Your task to perform on an android device: find snoozed emails in the gmail app Image 0: 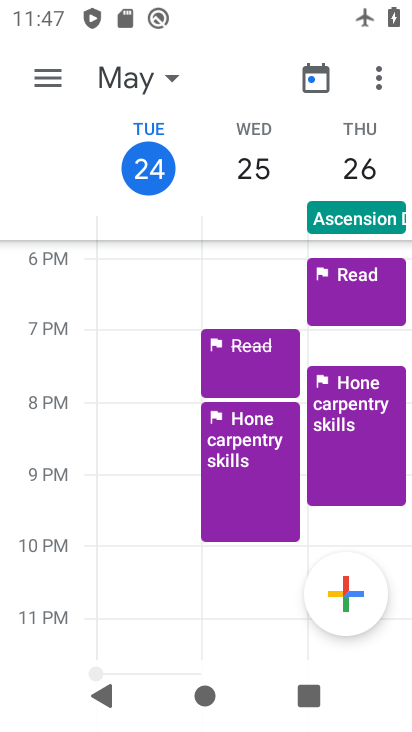
Step 0: press home button
Your task to perform on an android device: find snoozed emails in the gmail app Image 1: 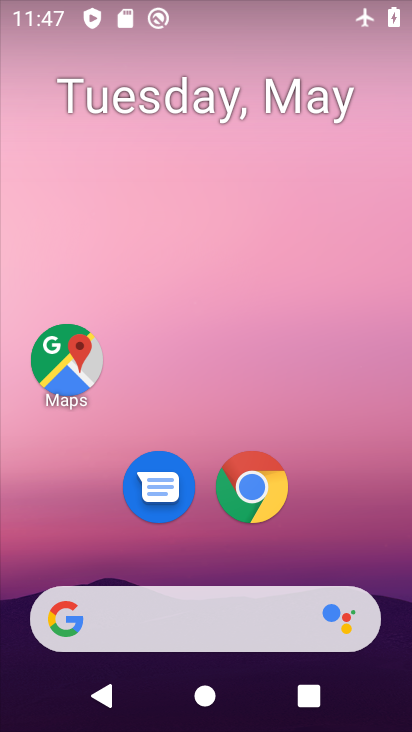
Step 1: click (350, 107)
Your task to perform on an android device: find snoozed emails in the gmail app Image 2: 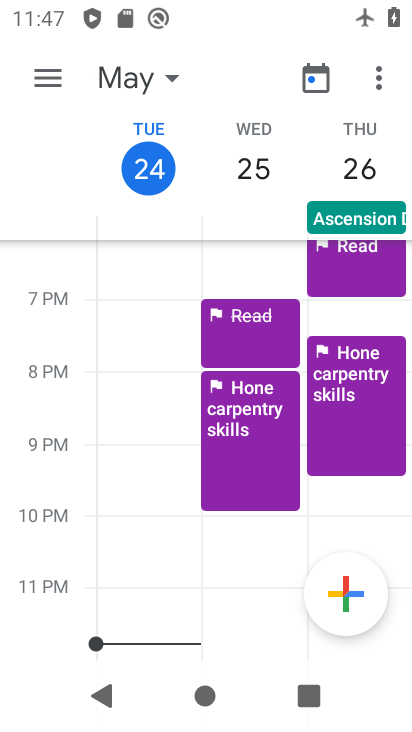
Step 2: press home button
Your task to perform on an android device: find snoozed emails in the gmail app Image 3: 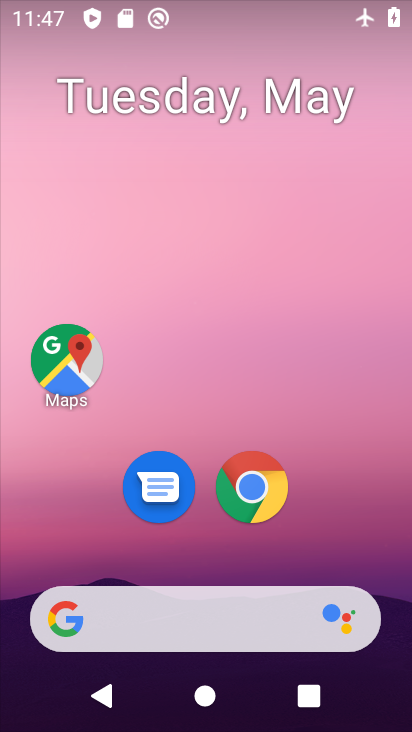
Step 3: drag from (314, 534) to (240, 0)
Your task to perform on an android device: find snoozed emails in the gmail app Image 4: 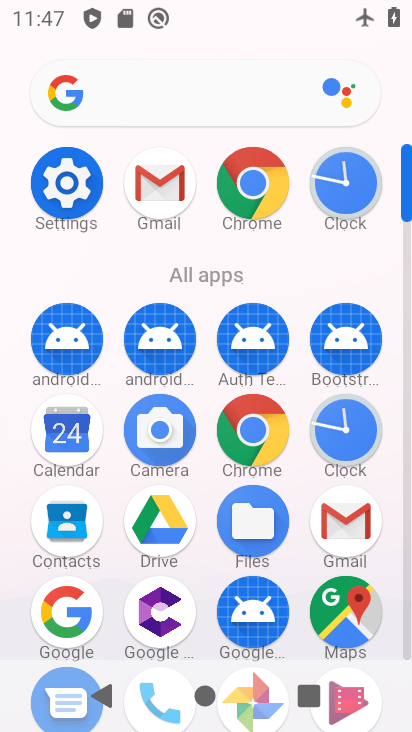
Step 4: click (163, 195)
Your task to perform on an android device: find snoozed emails in the gmail app Image 5: 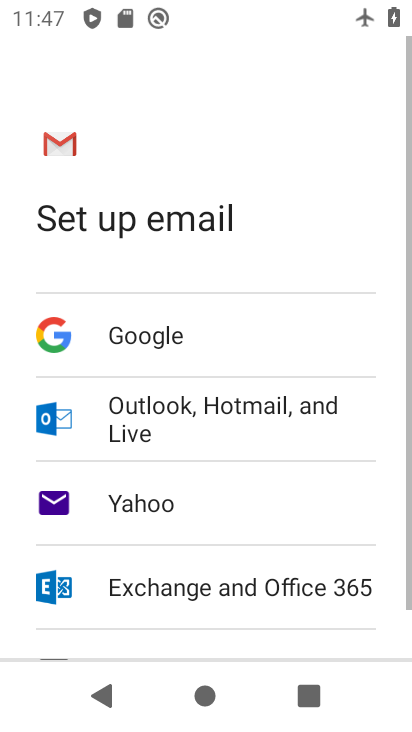
Step 5: drag from (201, 525) to (193, 21)
Your task to perform on an android device: find snoozed emails in the gmail app Image 6: 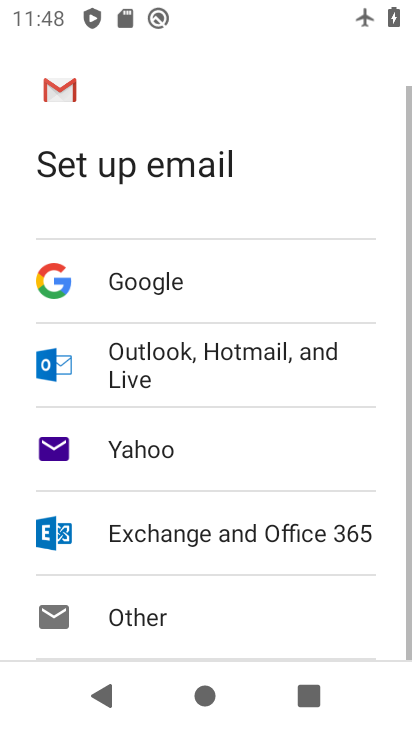
Step 6: press back button
Your task to perform on an android device: find snoozed emails in the gmail app Image 7: 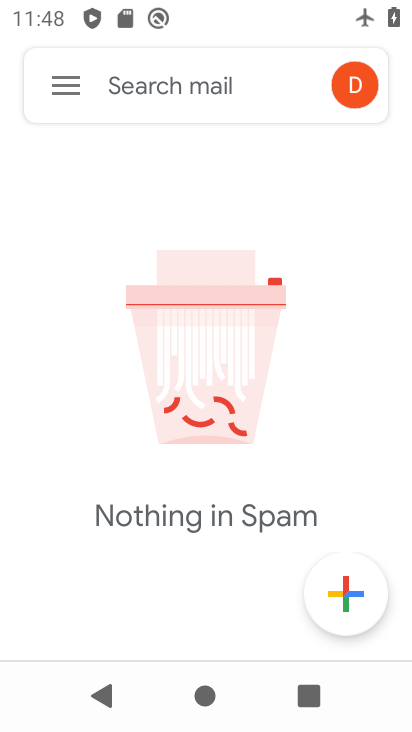
Step 7: click (47, 96)
Your task to perform on an android device: find snoozed emails in the gmail app Image 8: 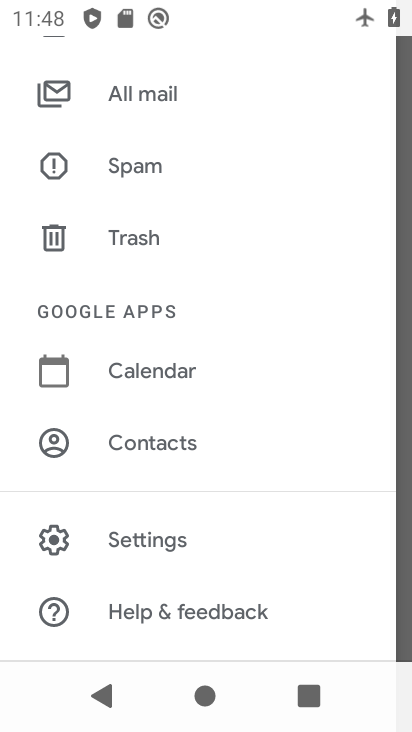
Step 8: drag from (304, 183) to (284, 627)
Your task to perform on an android device: find snoozed emails in the gmail app Image 9: 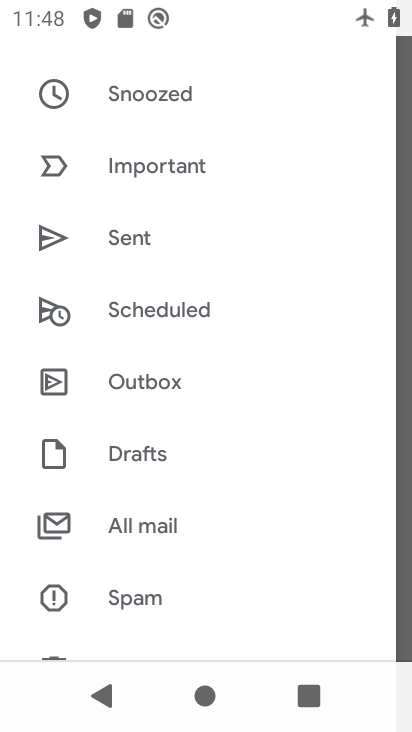
Step 9: click (211, 110)
Your task to perform on an android device: find snoozed emails in the gmail app Image 10: 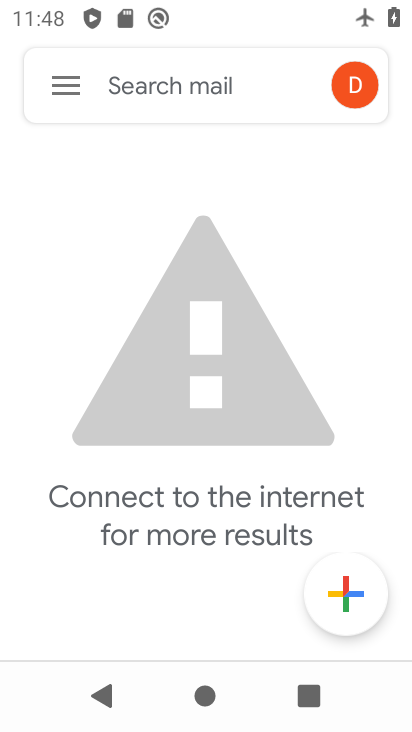
Step 10: task complete